Your task to perform on an android device: allow cookies in the chrome app Image 0: 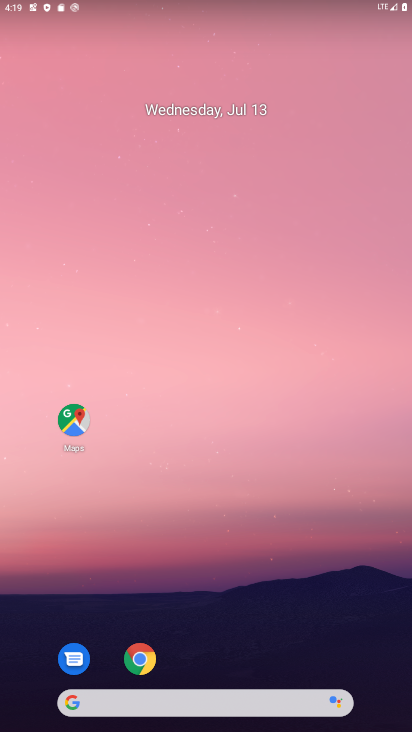
Step 0: press home button
Your task to perform on an android device: allow cookies in the chrome app Image 1: 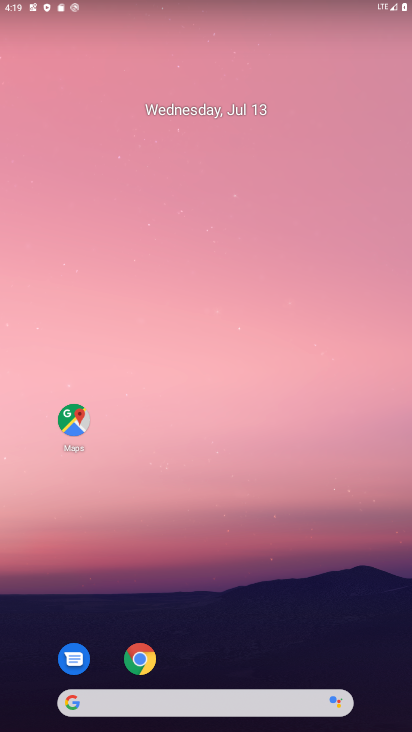
Step 1: click (139, 656)
Your task to perform on an android device: allow cookies in the chrome app Image 2: 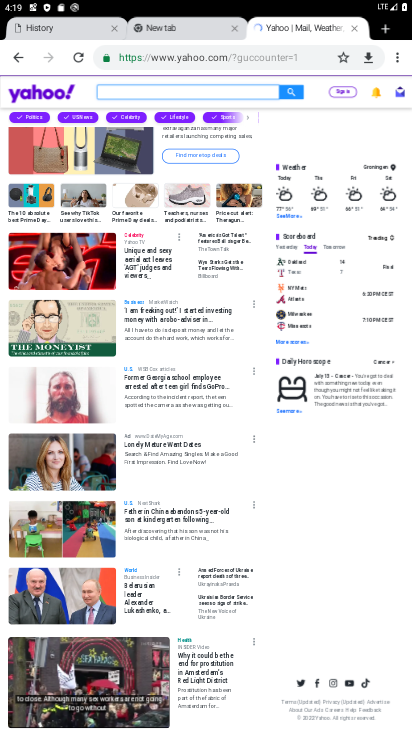
Step 2: click (394, 60)
Your task to perform on an android device: allow cookies in the chrome app Image 3: 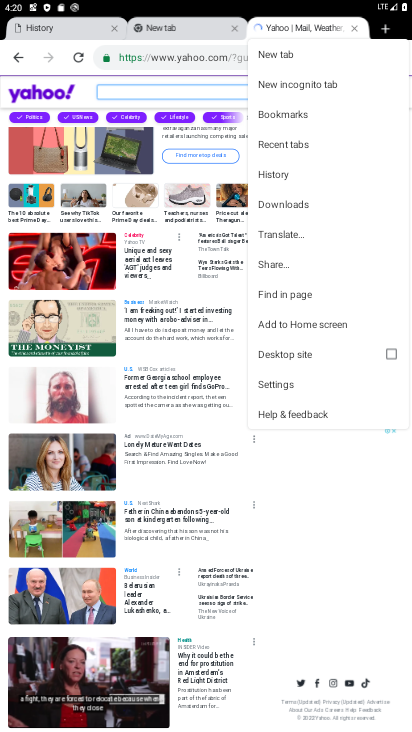
Step 3: click (298, 380)
Your task to perform on an android device: allow cookies in the chrome app Image 4: 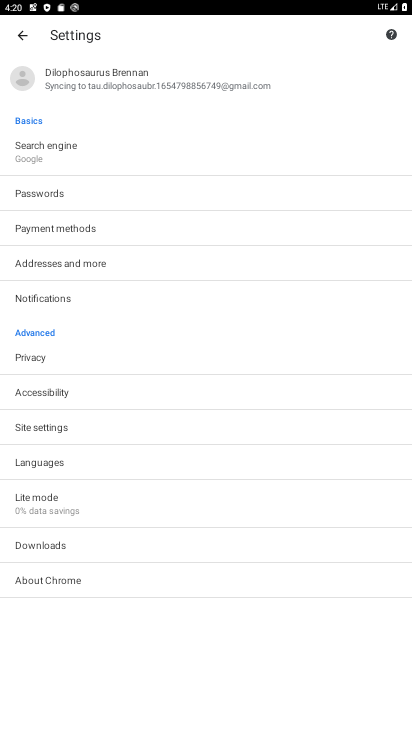
Step 4: click (55, 418)
Your task to perform on an android device: allow cookies in the chrome app Image 5: 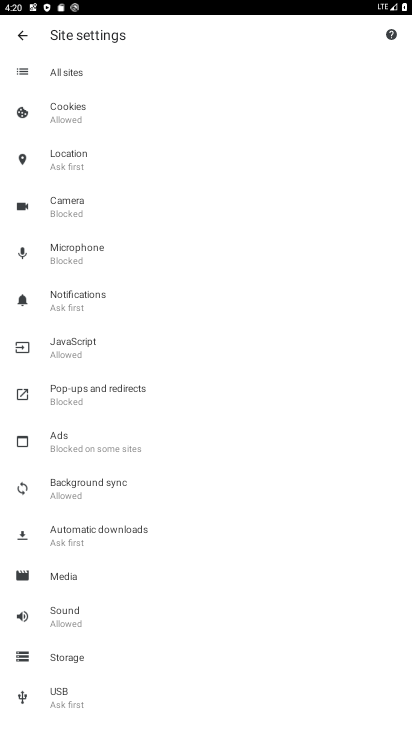
Step 5: click (93, 112)
Your task to perform on an android device: allow cookies in the chrome app Image 6: 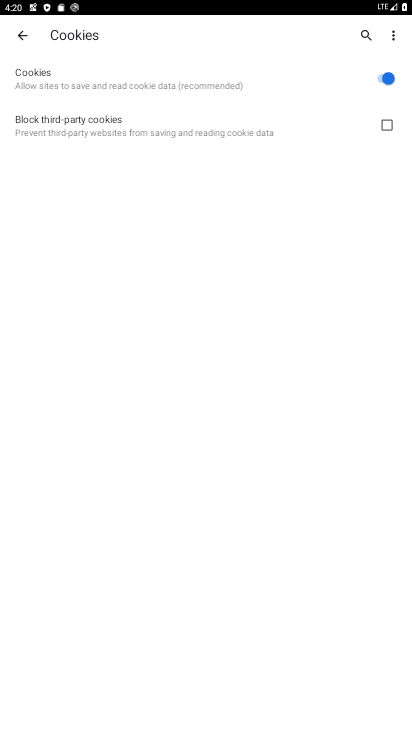
Step 6: task complete